Your task to perform on an android device: Open Android settings Image 0: 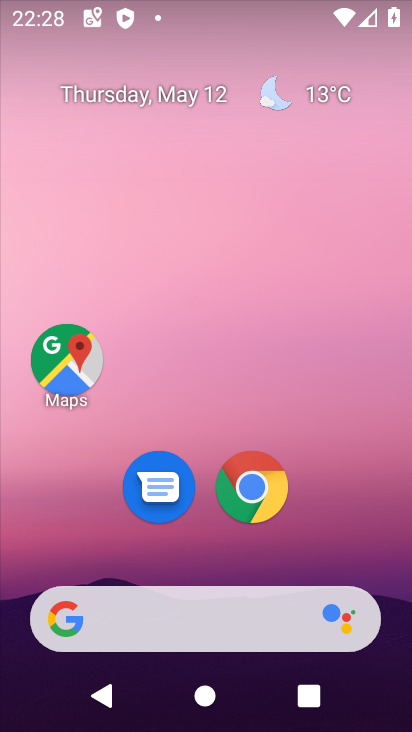
Step 0: drag from (173, 553) to (226, 240)
Your task to perform on an android device: Open Android settings Image 1: 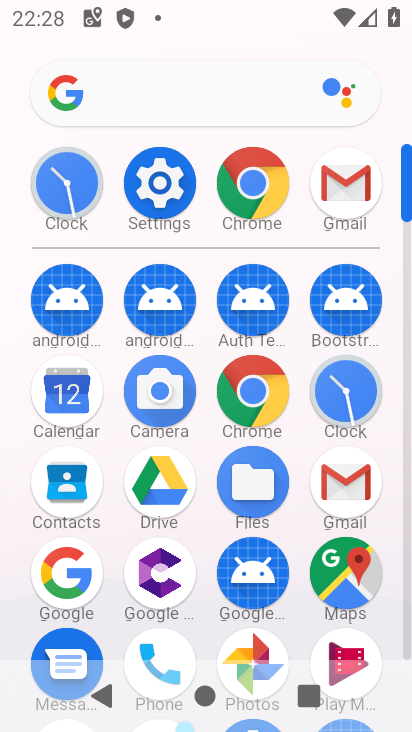
Step 1: click (147, 204)
Your task to perform on an android device: Open Android settings Image 2: 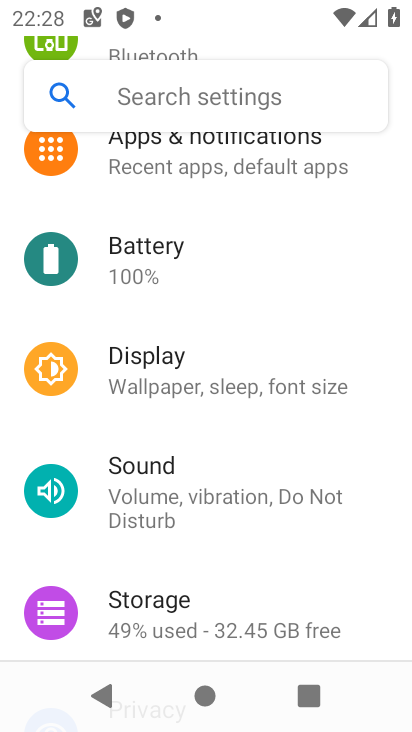
Step 2: task complete